Your task to perform on an android device: find photos in the google photos app Image 0: 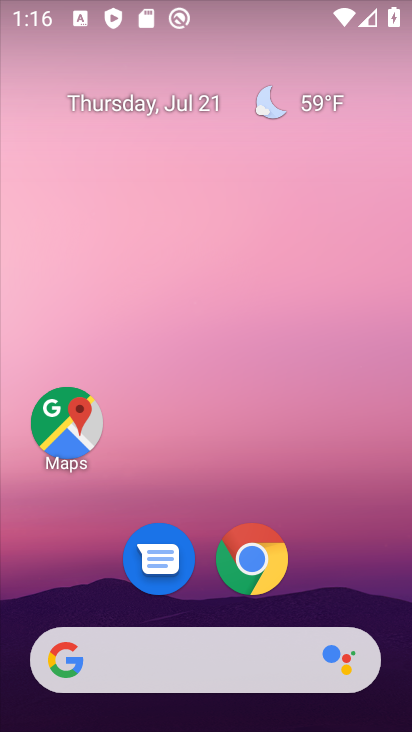
Step 0: drag from (286, 657) to (259, 157)
Your task to perform on an android device: find photos in the google photos app Image 1: 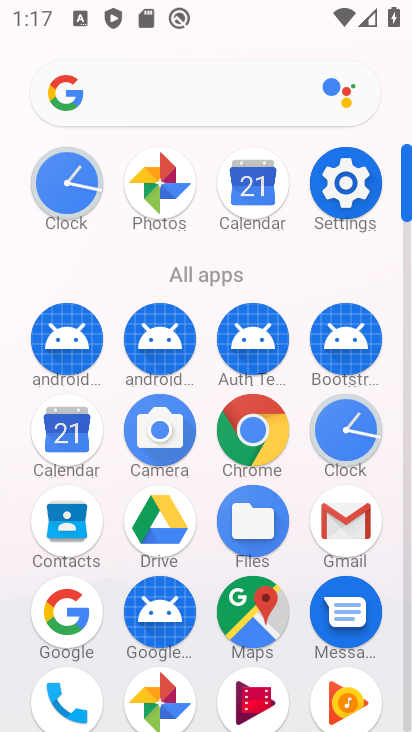
Step 1: drag from (275, 563) to (327, 96)
Your task to perform on an android device: find photos in the google photos app Image 2: 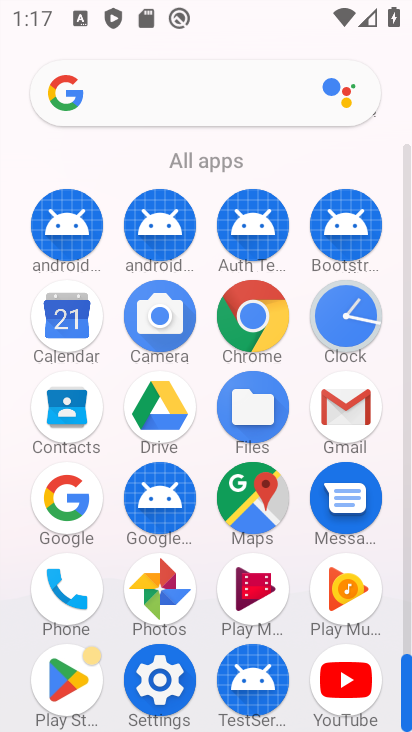
Step 2: click (163, 588)
Your task to perform on an android device: find photos in the google photos app Image 3: 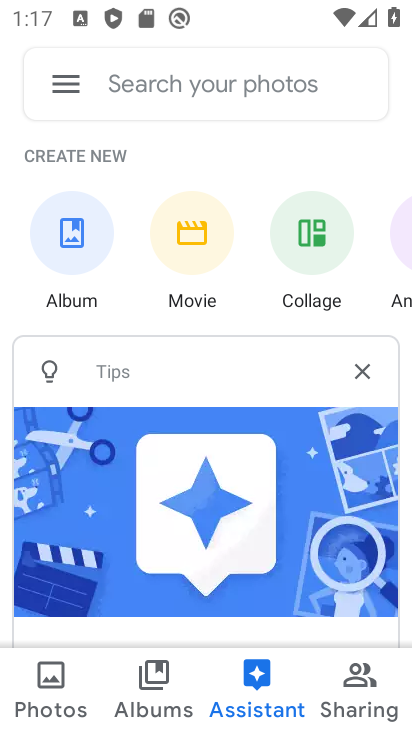
Step 3: click (63, 697)
Your task to perform on an android device: find photos in the google photos app Image 4: 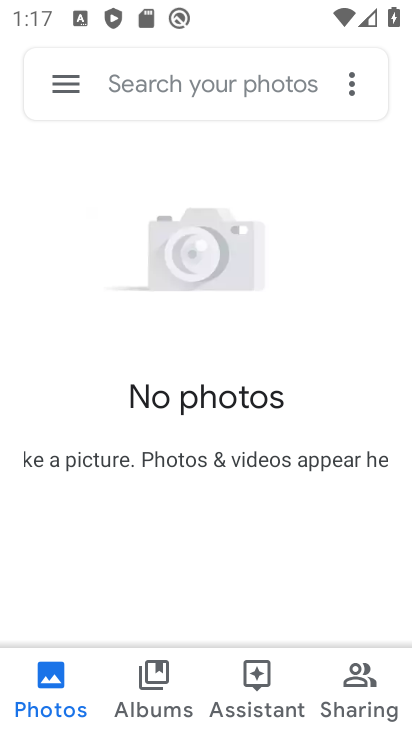
Step 4: task complete